Your task to perform on an android device: Go to notification settings Image 0: 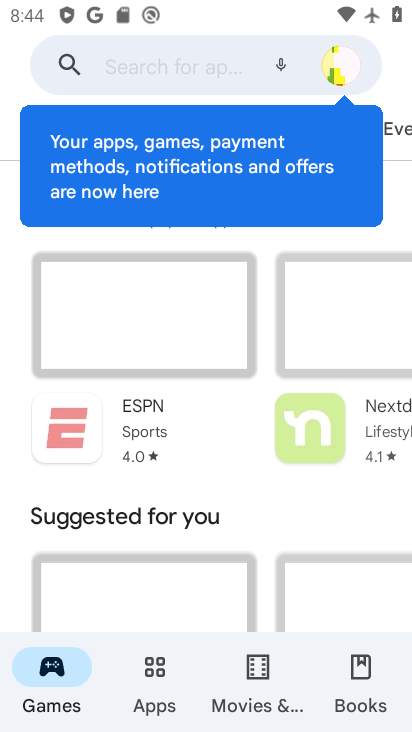
Step 0: press home button
Your task to perform on an android device: Go to notification settings Image 1: 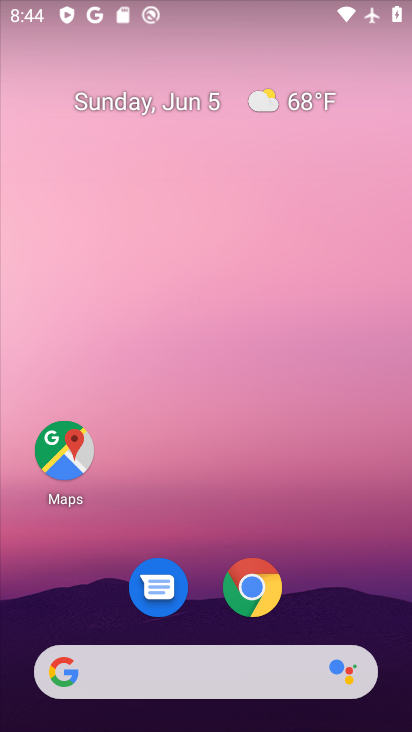
Step 1: drag from (319, 625) to (216, 27)
Your task to perform on an android device: Go to notification settings Image 2: 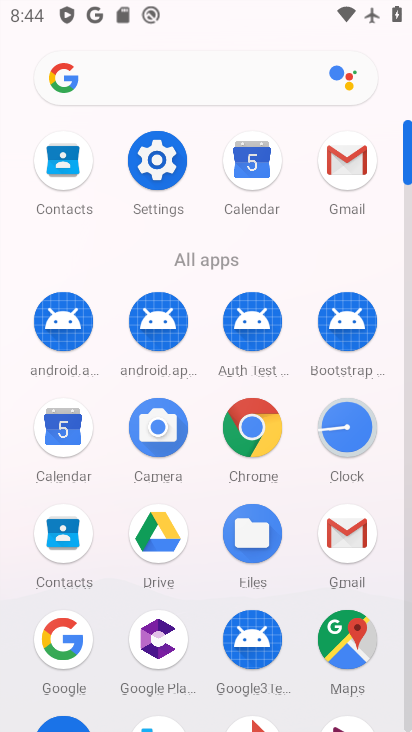
Step 2: click (164, 173)
Your task to perform on an android device: Go to notification settings Image 3: 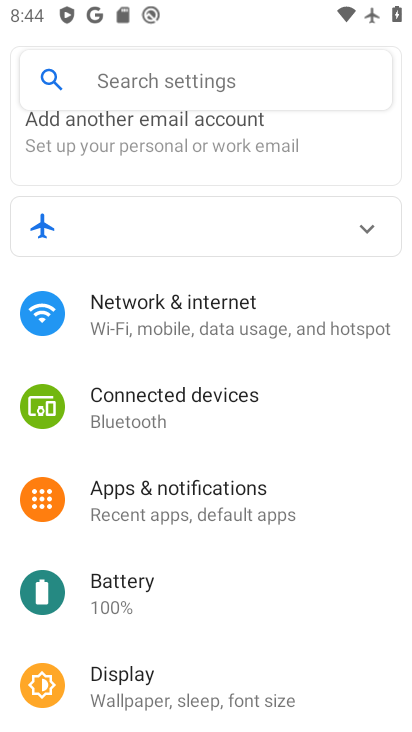
Step 3: click (164, 173)
Your task to perform on an android device: Go to notification settings Image 4: 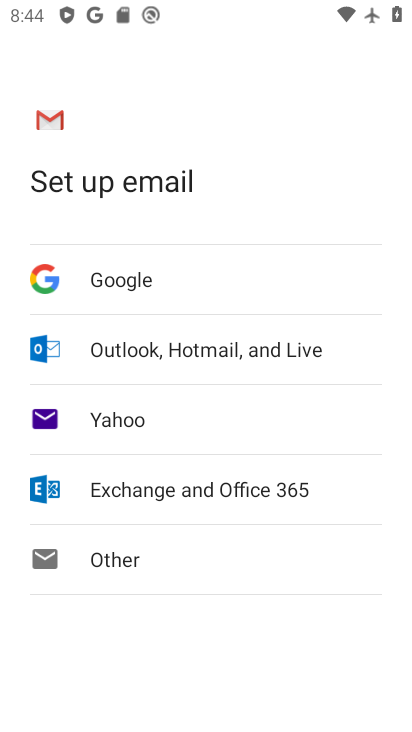
Step 4: press back button
Your task to perform on an android device: Go to notification settings Image 5: 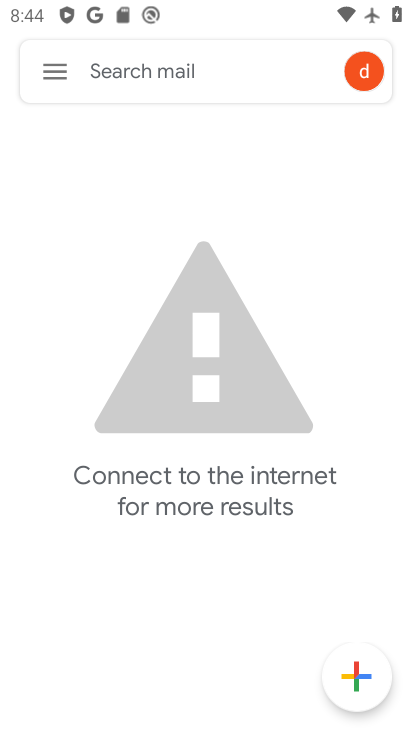
Step 5: press back button
Your task to perform on an android device: Go to notification settings Image 6: 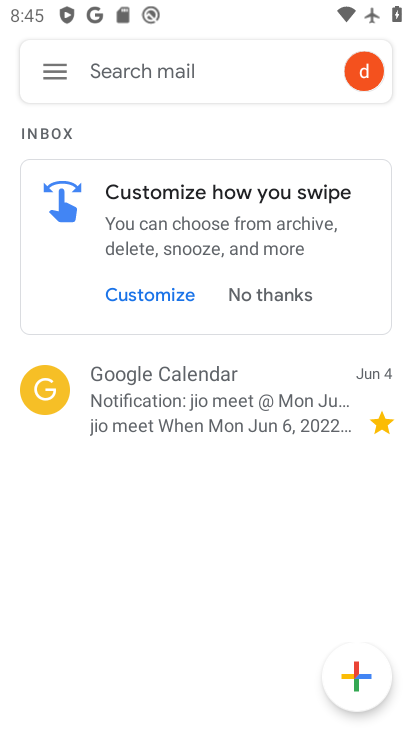
Step 6: press home button
Your task to perform on an android device: Go to notification settings Image 7: 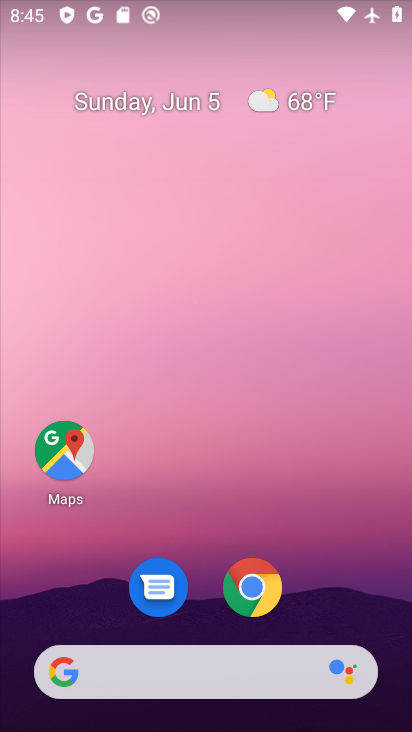
Step 7: drag from (348, 596) to (290, 140)
Your task to perform on an android device: Go to notification settings Image 8: 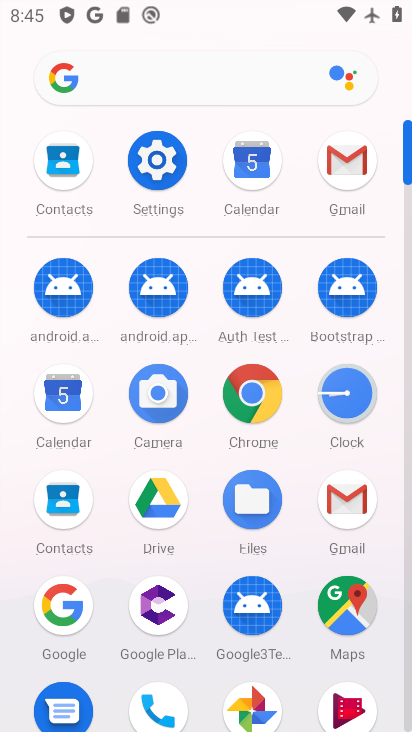
Step 8: click (156, 147)
Your task to perform on an android device: Go to notification settings Image 9: 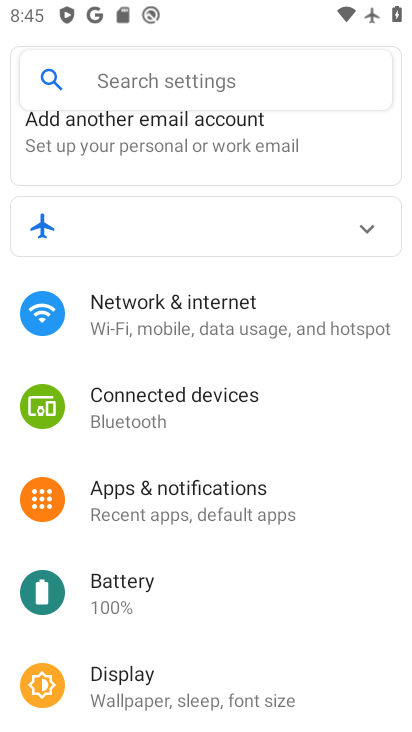
Step 9: click (205, 495)
Your task to perform on an android device: Go to notification settings Image 10: 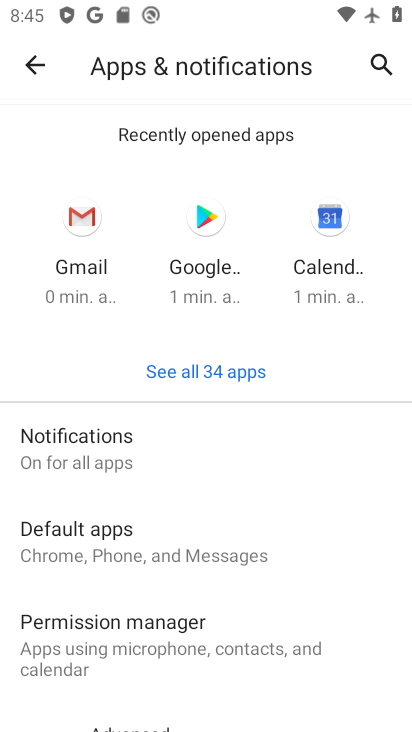
Step 10: click (138, 436)
Your task to perform on an android device: Go to notification settings Image 11: 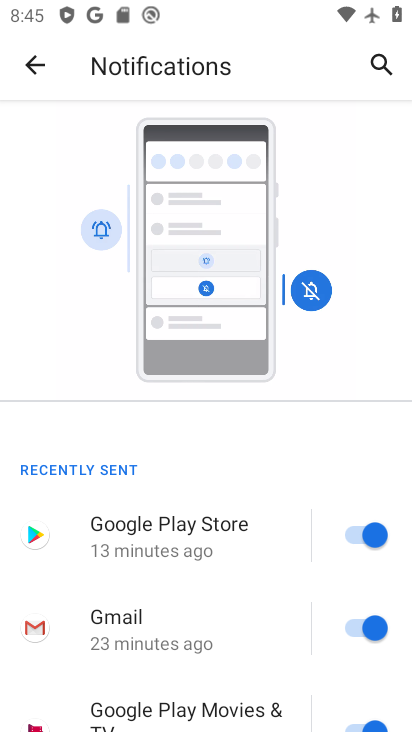
Step 11: task complete